Your task to perform on an android device: Open the phone app and click the voicemail tab. Image 0: 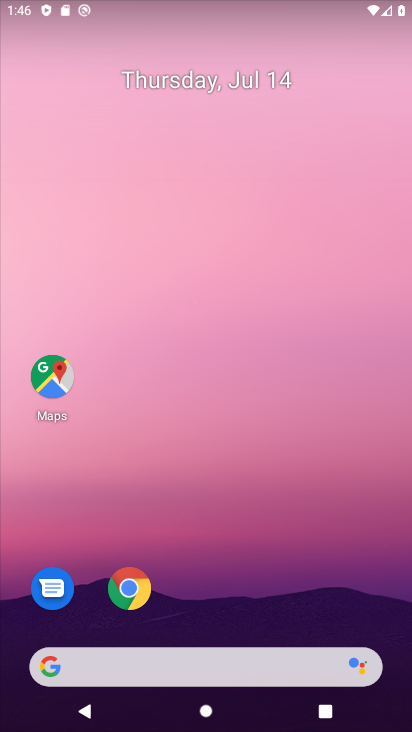
Step 0: drag from (145, 616) to (223, 43)
Your task to perform on an android device: Open the phone app and click the voicemail tab. Image 1: 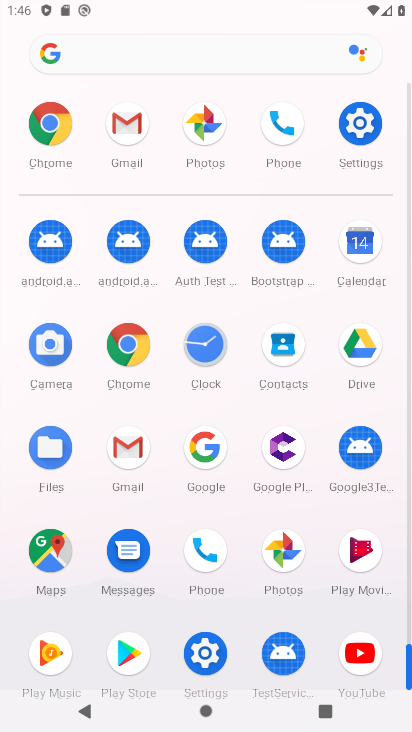
Step 1: click (223, 552)
Your task to perform on an android device: Open the phone app and click the voicemail tab. Image 2: 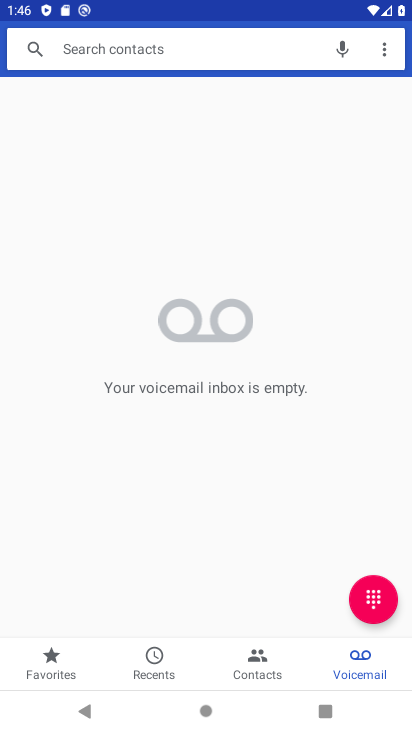
Step 2: click (370, 649)
Your task to perform on an android device: Open the phone app and click the voicemail tab. Image 3: 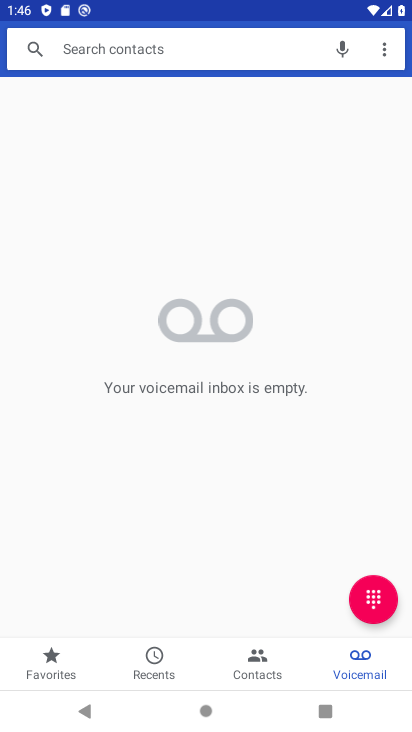
Step 3: task complete